Your task to perform on an android device: change alarm snooze length Image 0: 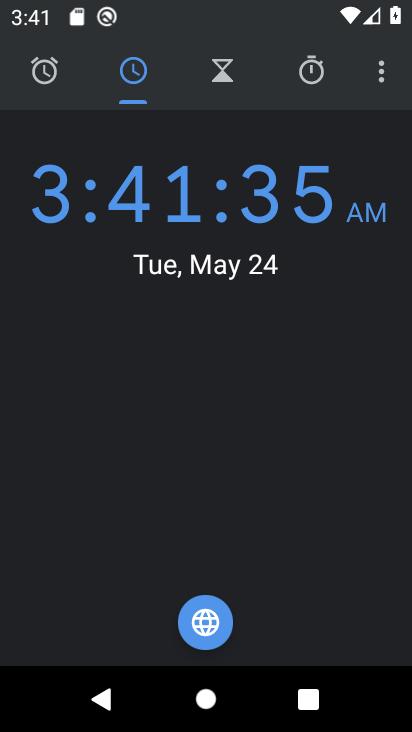
Step 0: click (388, 64)
Your task to perform on an android device: change alarm snooze length Image 1: 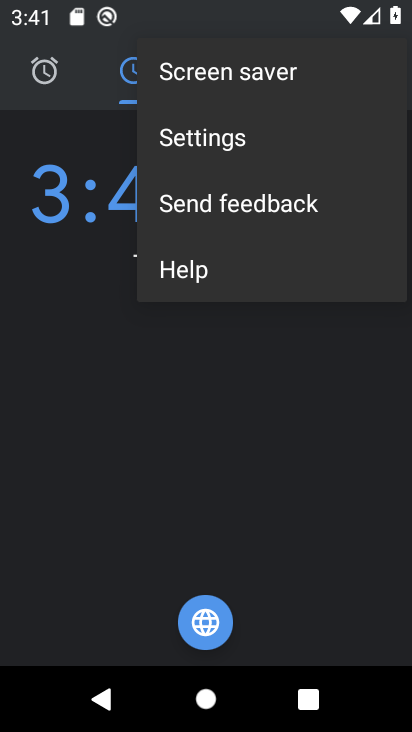
Step 1: click (214, 142)
Your task to perform on an android device: change alarm snooze length Image 2: 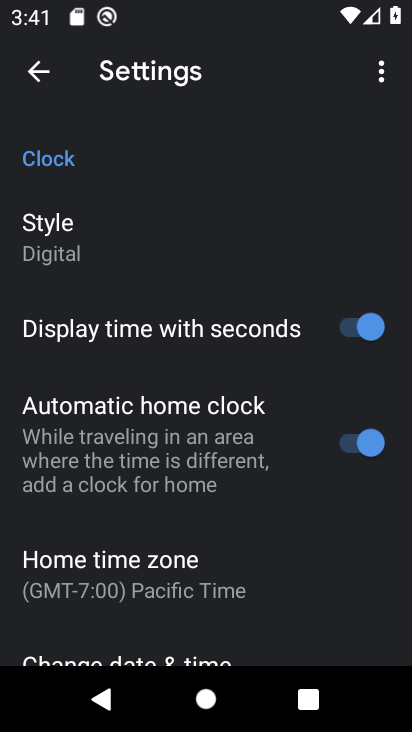
Step 2: drag from (117, 562) to (123, 250)
Your task to perform on an android device: change alarm snooze length Image 3: 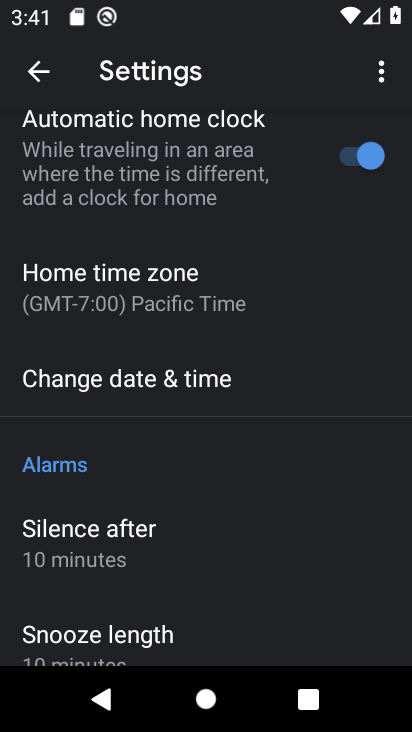
Step 3: drag from (179, 565) to (178, 394)
Your task to perform on an android device: change alarm snooze length Image 4: 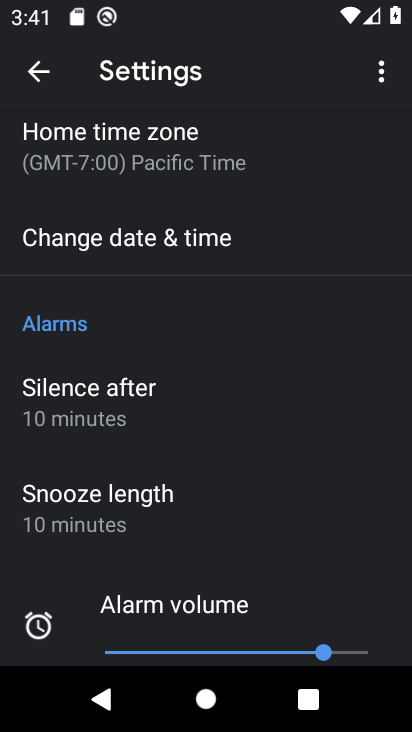
Step 4: click (87, 508)
Your task to perform on an android device: change alarm snooze length Image 5: 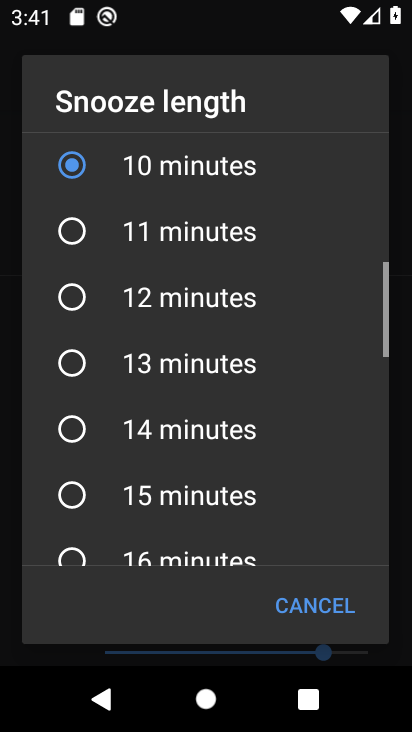
Step 5: click (150, 510)
Your task to perform on an android device: change alarm snooze length Image 6: 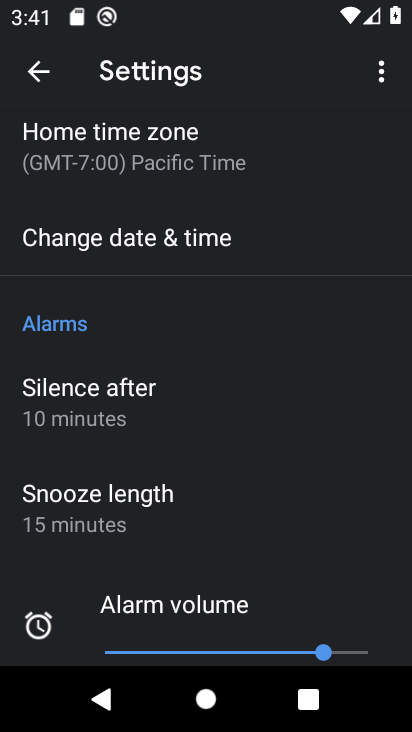
Step 6: task complete